Your task to perform on an android device: find photos in the google photos app Image 0: 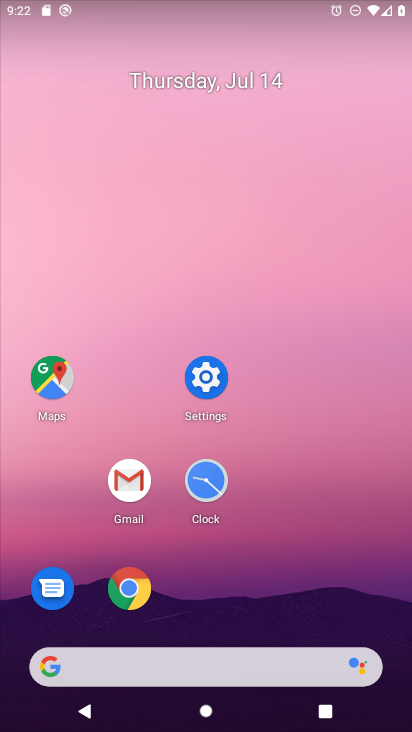
Step 0: drag from (393, 708) to (253, 262)
Your task to perform on an android device: find photos in the google photos app Image 1: 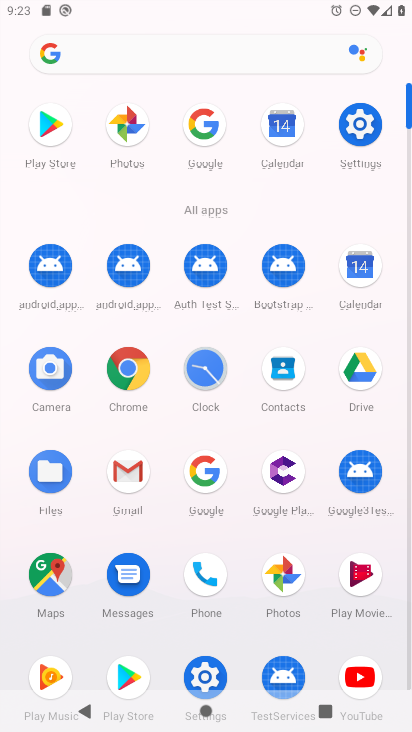
Step 1: click (293, 572)
Your task to perform on an android device: find photos in the google photos app Image 2: 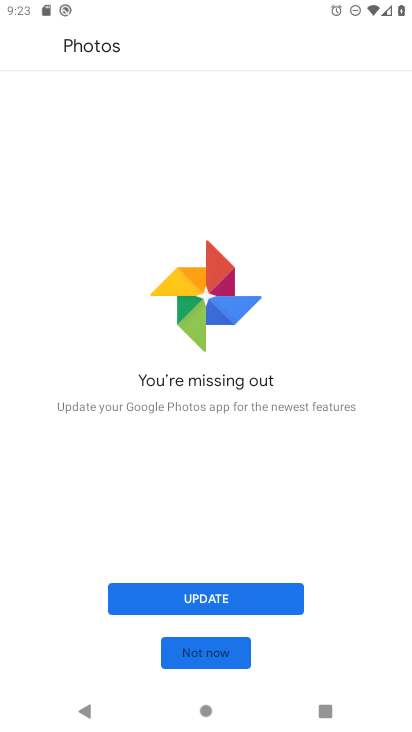
Step 2: click (258, 592)
Your task to perform on an android device: find photos in the google photos app Image 3: 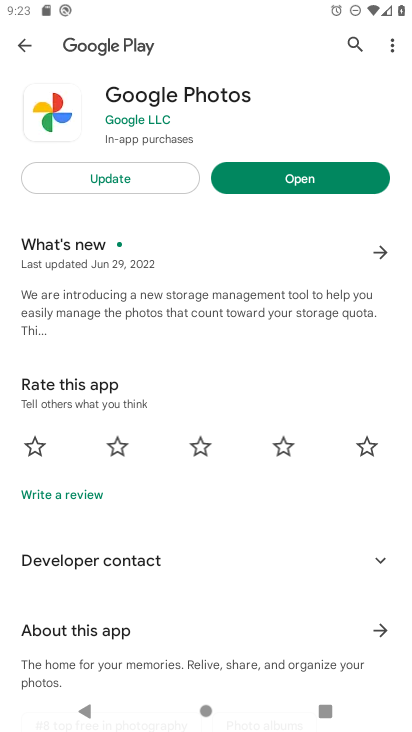
Step 3: click (150, 181)
Your task to perform on an android device: find photos in the google photos app Image 4: 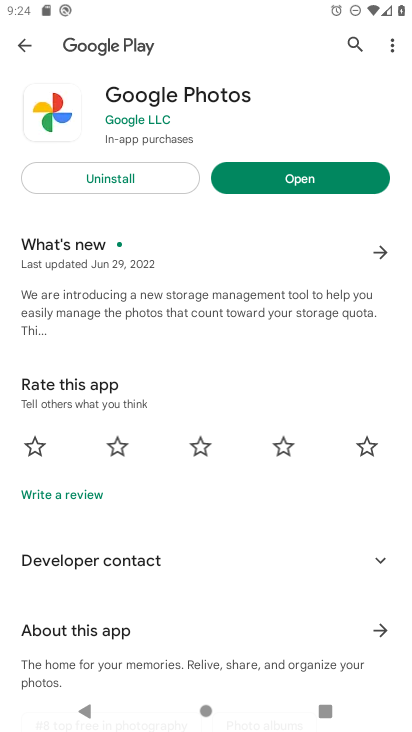
Step 4: click (351, 171)
Your task to perform on an android device: find photos in the google photos app Image 5: 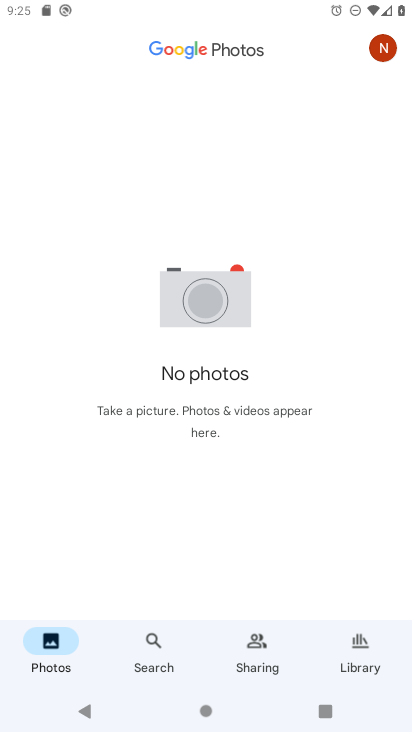
Step 5: task complete